Your task to perform on an android device: set an alarm Image 0: 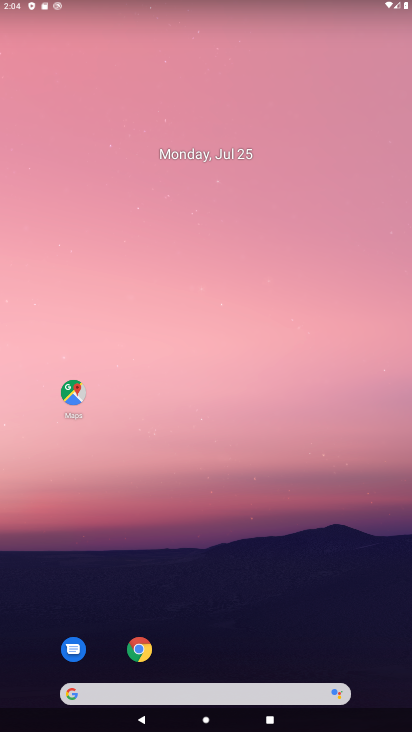
Step 0: drag from (382, 662) to (334, 99)
Your task to perform on an android device: set an alarm Image 1: 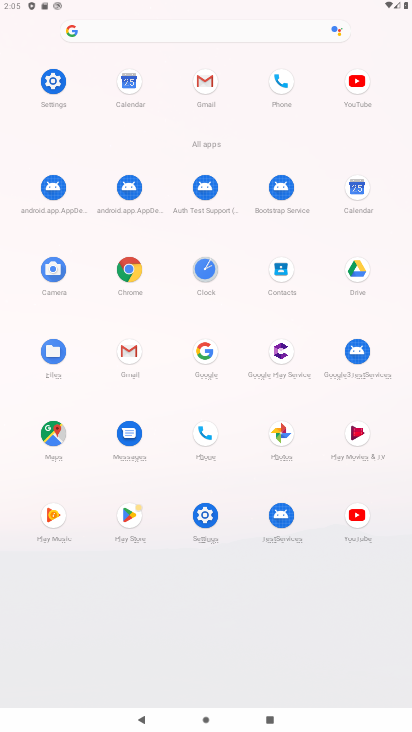
Step 1: click (203, 270)
Your task to perform on an android device: set an alarm Image 2: 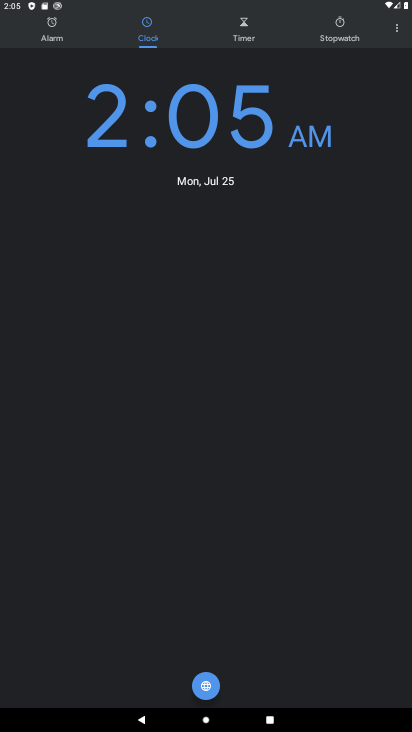
Step 2: click (51, 33)
Your task to perform on an android device: set an alarm Image 3: 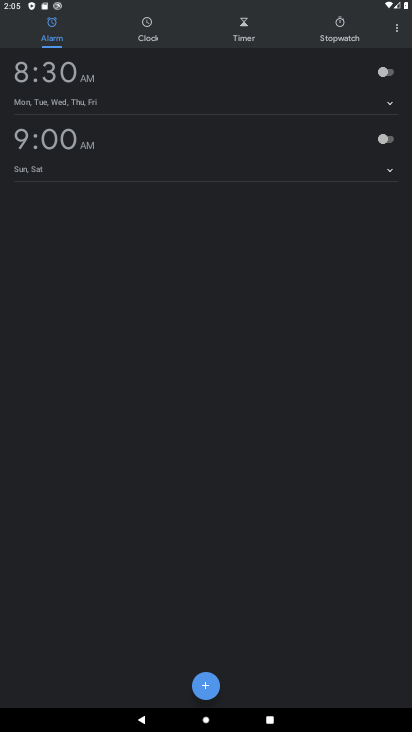
Step 3: click (59, 73)
Your task to perform on an android device: set an alarm Image 4: 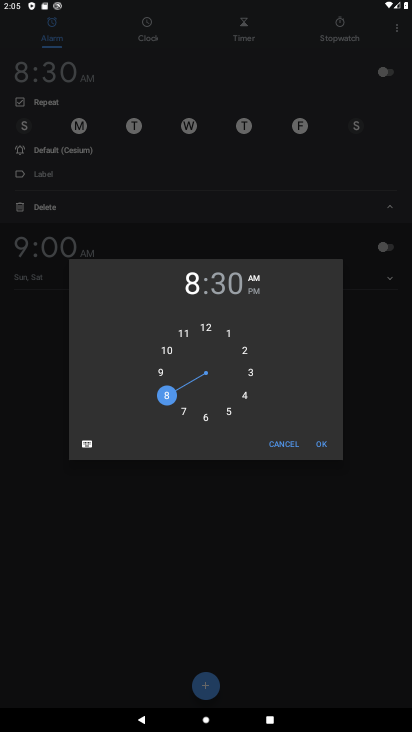
Step 4: click (207, 417)
Your task to perform on an android device: set an alarm Image 5: 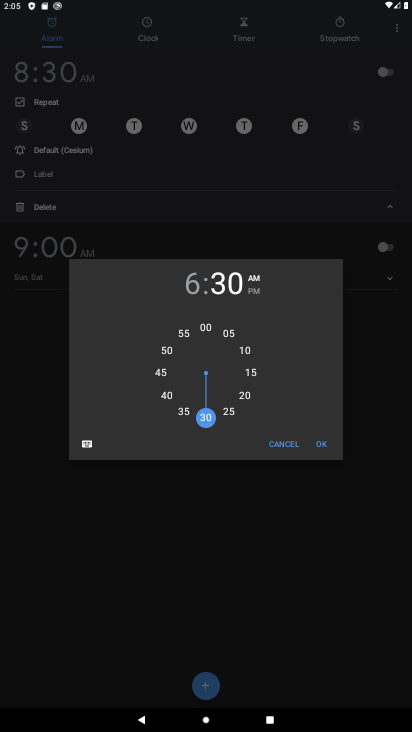
Step 5: click (206, 328)
Your task to perform on an android device: set an alarm Image 6: 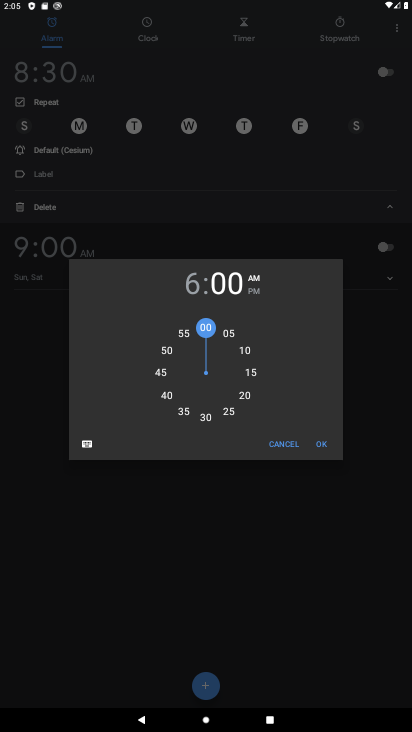
Step 6: click (318, 445)
Your task to perform on an android device: set an alarm Image 7: 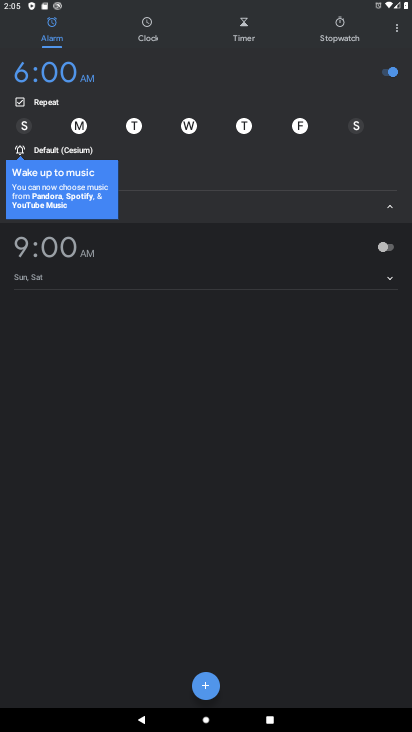
Step 7: click (358, 125)
Your task to perform on an android device: set an alarm Image 8: 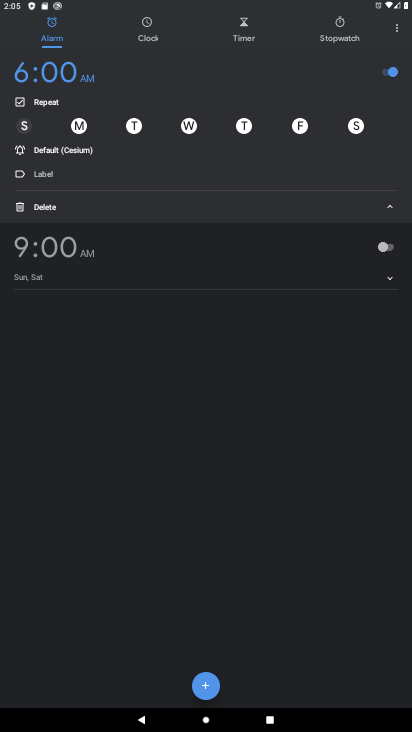
Step 8: click (387, 205)
Your task to perform on an android device: set an alarm Image 9: 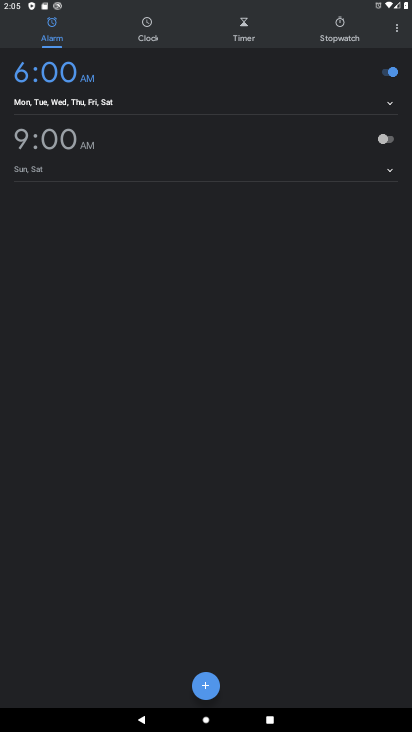
Step 9: task complete